Your task to perform on an android device: allow cookies in the chrome app Image 0: 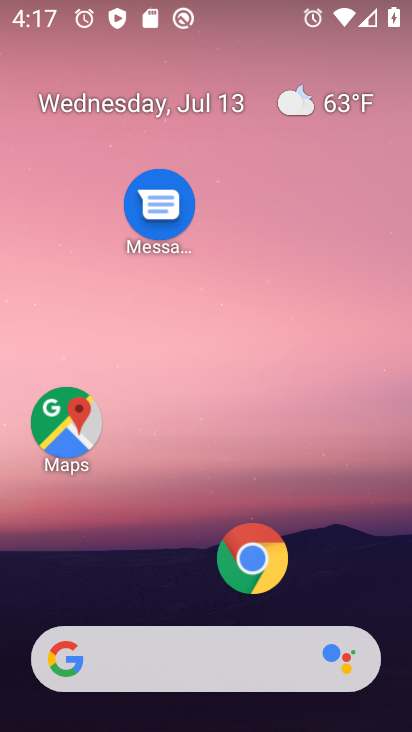
Step 0: click (273, 569)
Your task to perform on an android device: allow cookies in the chrome app Image 1: 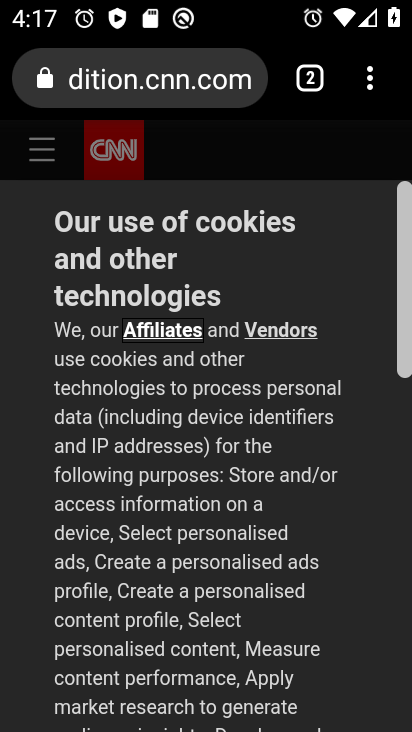
Step 1: click (366, 84)
Your task to perform on an android device: allow cookies in the chrome app Image 2: 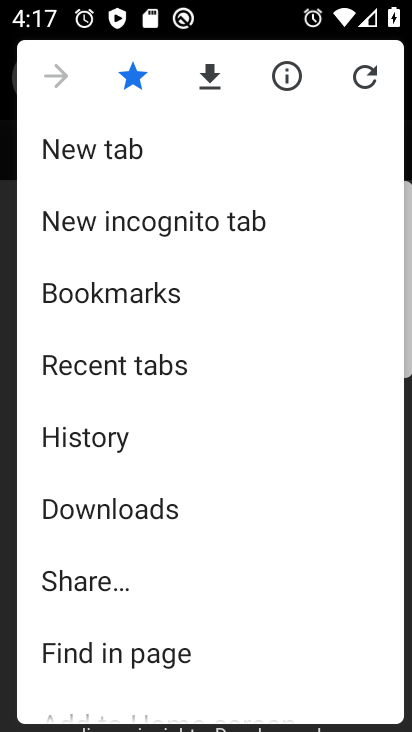
Step 2: drag from (91, 650) to (150, 284)
Your task to perform on an android device: allow cookies in the chrome app Image 3: 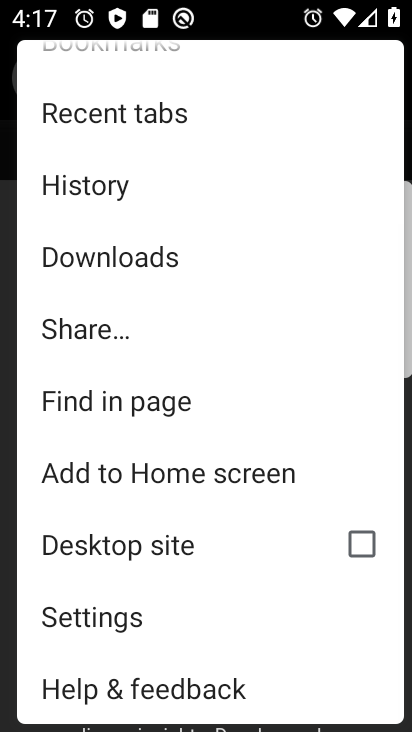
Step 3: click (83, 616)
Your task to perform on an android device: allow cookies in the chrome app Image 4: 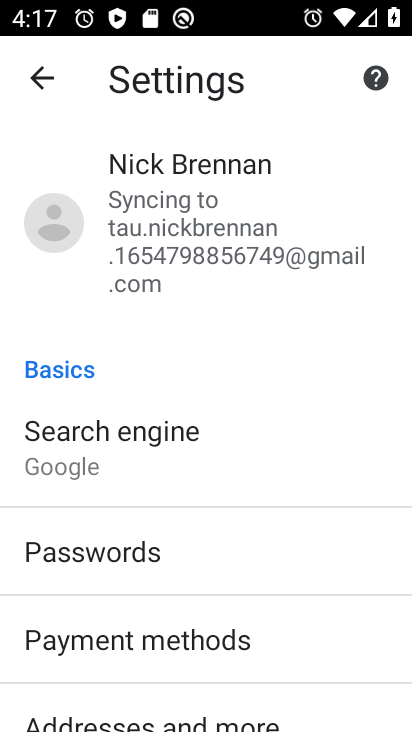
Step 4: drag from (147, 682) to (180, 259)
Your task to perform on an android device: allow cookies in the chrome app Image 5: 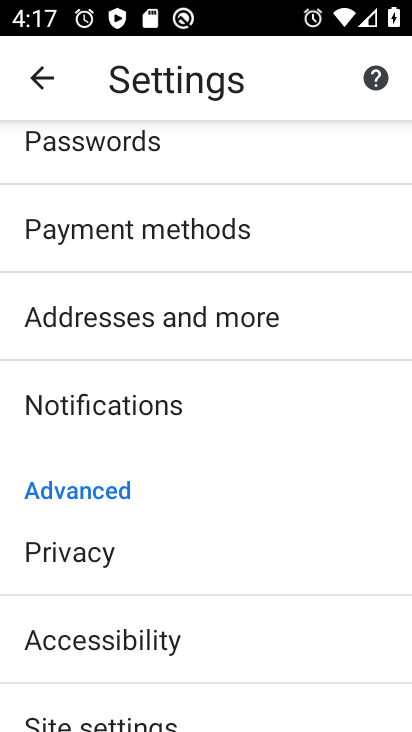
Step 5: drag from (81, 684) to (129, 275)
Your task to perform on an android device: allow cookies in the chrome app Image 6: 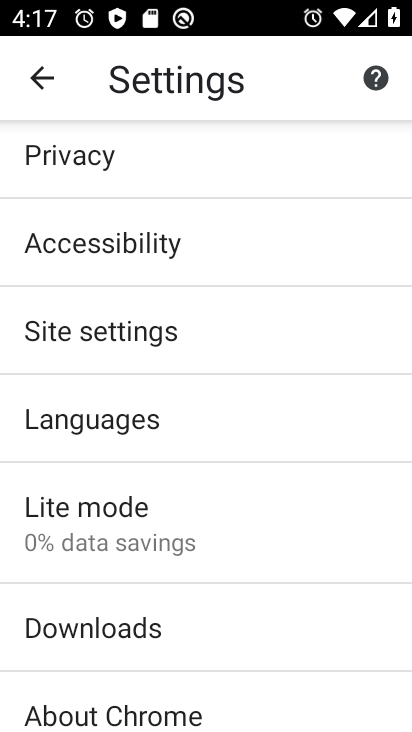
Step 6: click (81, 323)
Your task to perform on an android device: allow cookies in the chrome app Image 7: 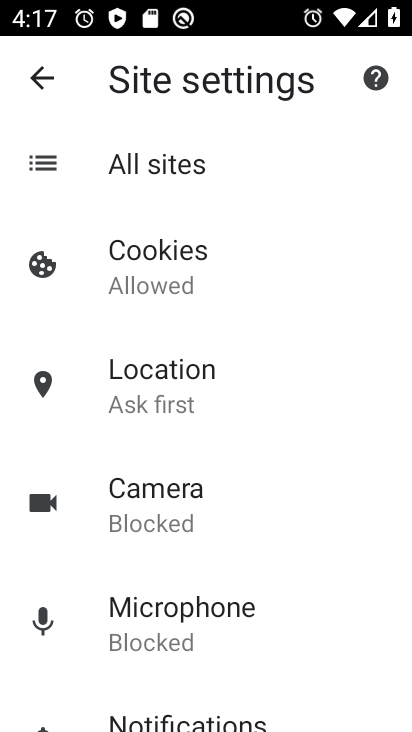
Step 7: click (140, 244)
Your task to perform on an android device: allow cookies in the chrome app Image 8: 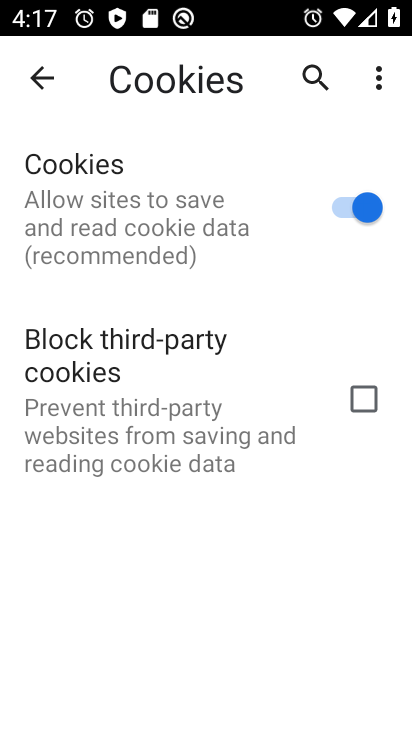
Step 8: task complete